Your task to perform on an android device: Go to eBay Image 0: 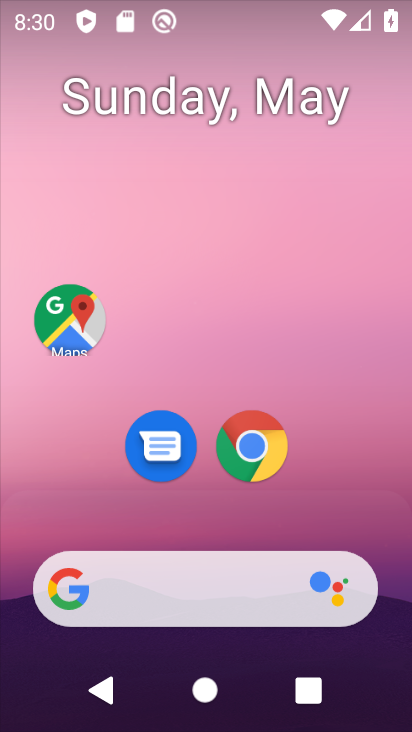
Step 0: click (262, 469)
Your task to perform on an android device: Go to eBay Image 1: 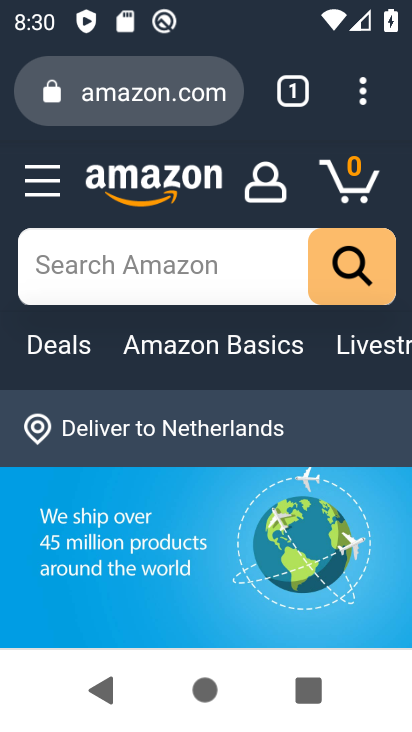
Step 1: drag from (374, 90) to (347, 167)
Your task to perform on an android device: Go to eBay Image 2: 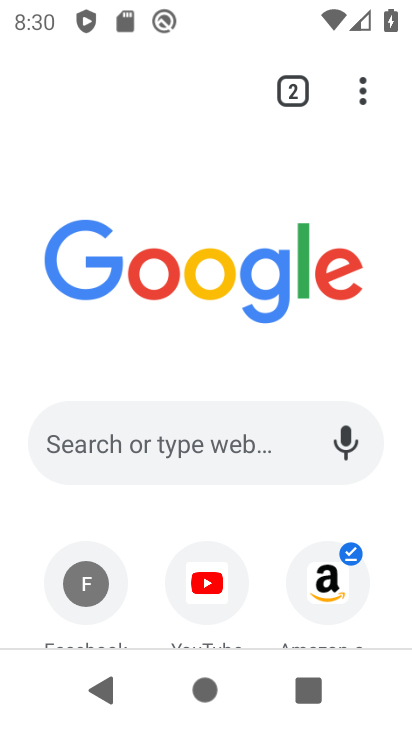
Step 2: drag from (190, 570) to (240, 316)
Your task to perform on an android device: Go to eBay Image 3: 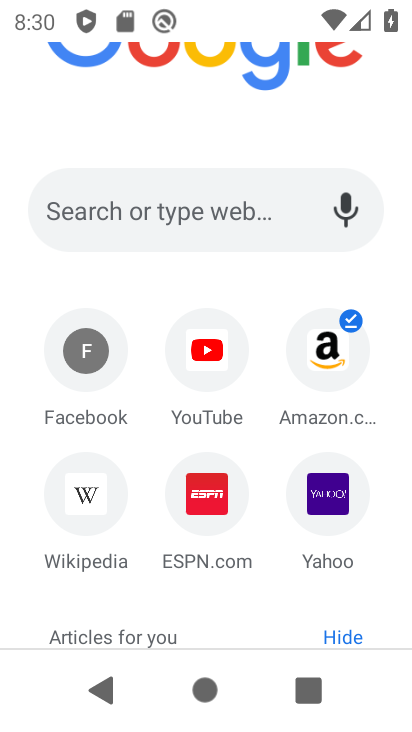
Step 3: click (154, 200)
Your task to perform on an android device: Go to eBay Image 4: 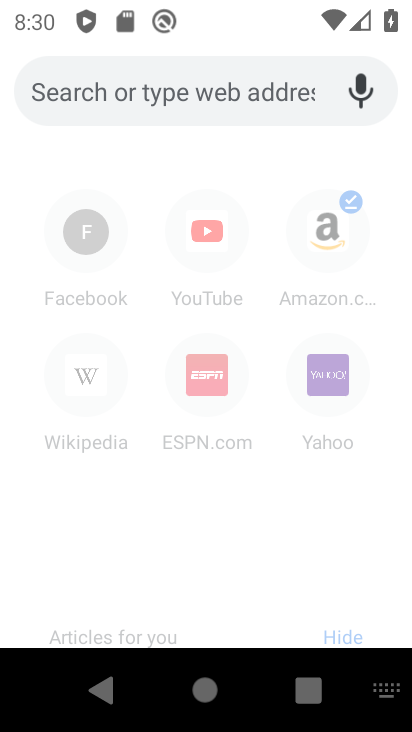
Step 4: type "eBay"
Your task to perform on an android device: Go to eBay Image 5: 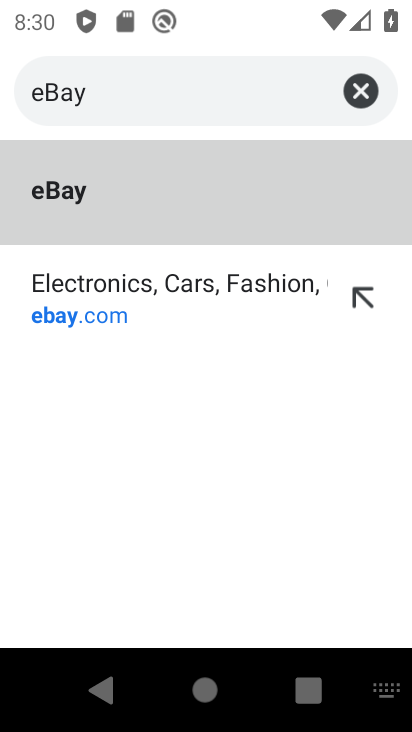
Step 5: click (185, 193)
Your task to perform on an android device: Go to eBay Image 6: 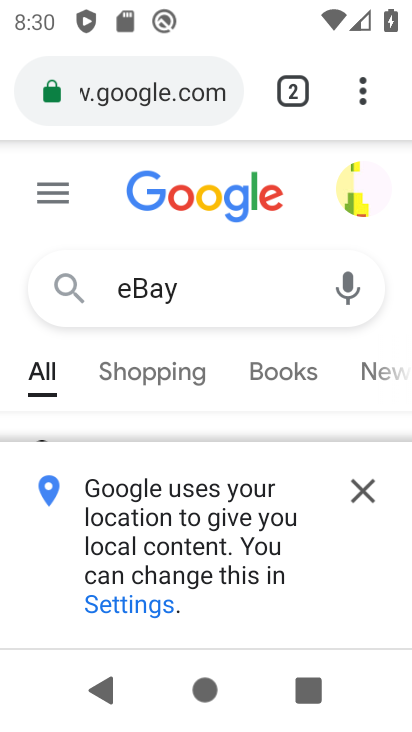
Step 6: click (371, 493)
Your task to perform on an android device: Go to eBay Image 7: 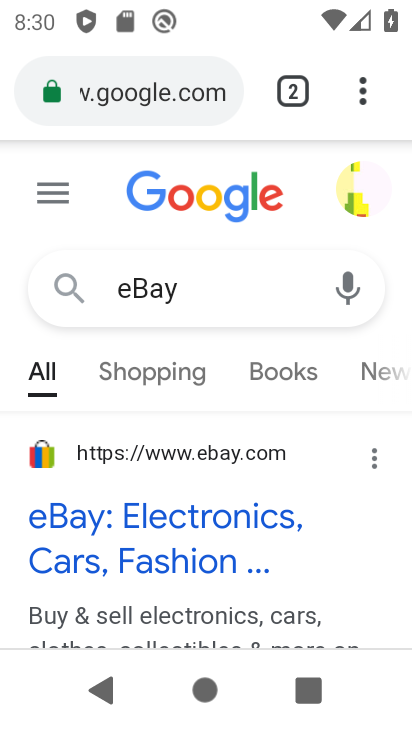
Step 7: click (121, 545)
Your task to perform on an android device: Go to eBay Image 8: 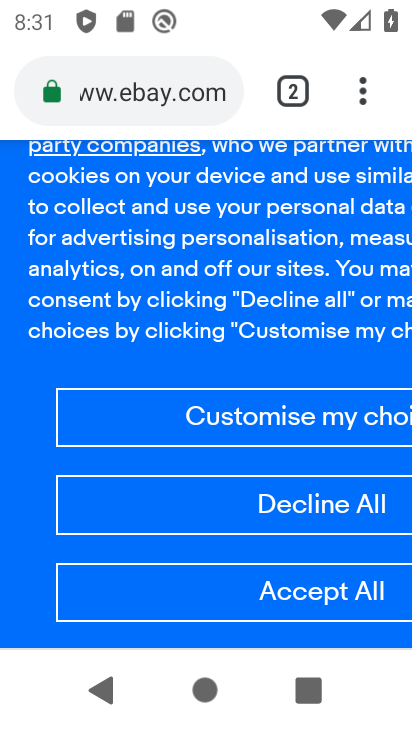
Step 8: click (321, 642)
Your task to perform on an android device: Go to eBay Image 9: 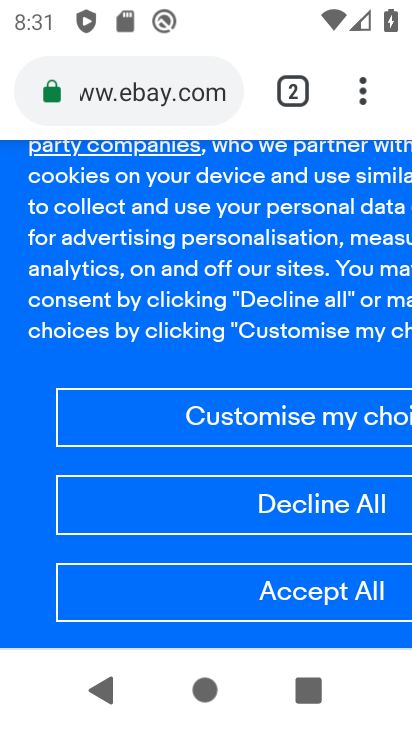
Step 9: click (304, 597)
Your task to perform on an android device: Go to eBay Image 10: 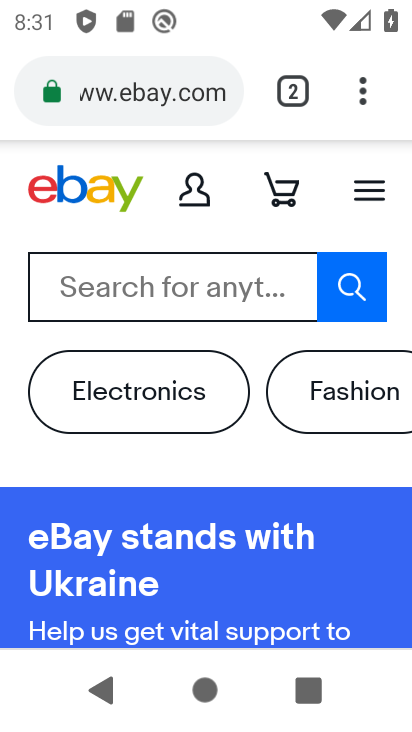
Step 10: task complete